Your task to perform on an android device: Play the latest video from the Huffington Post Image 0: 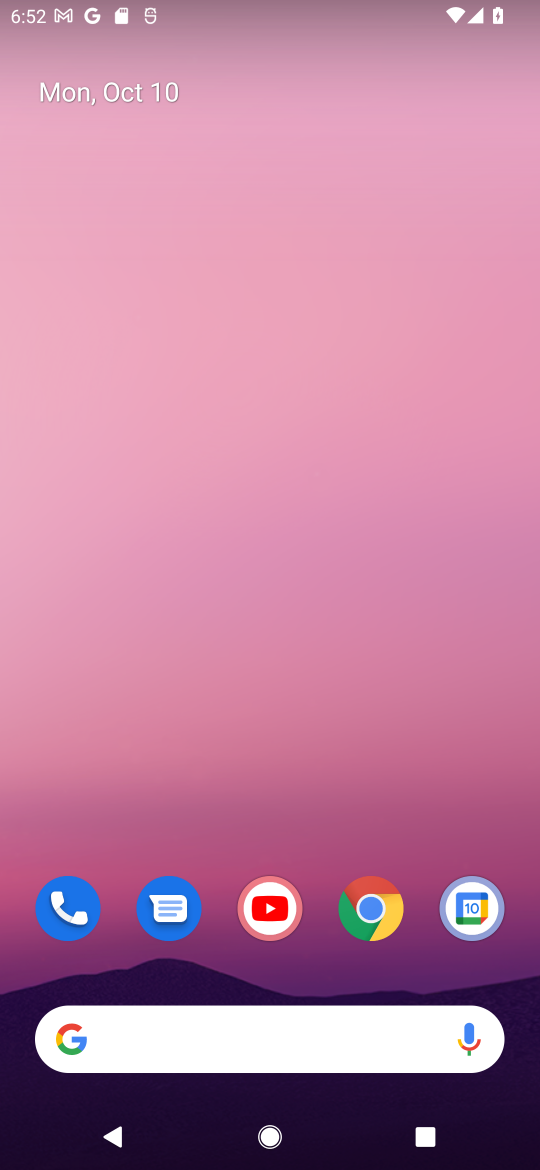
Step 0: drag from (326, 967) to (260, 31)
Your task to perform on an android device: Play the latest video from the Huffington Post Image 1: 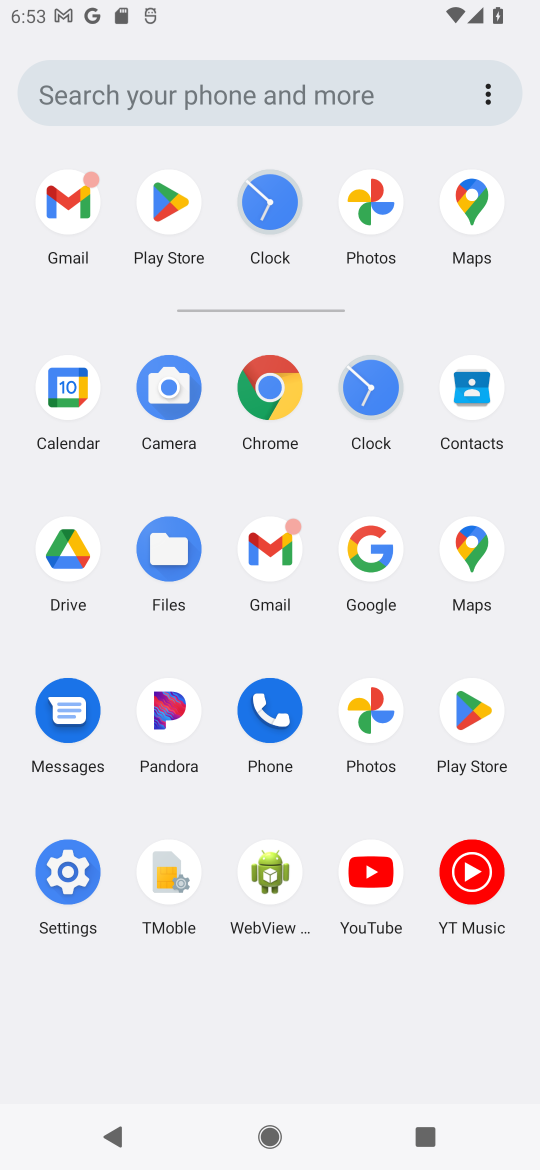
Step 1: click (339, 901)
Your task to perform on an android device: Play the latest video from the Huffington Post Image 2: 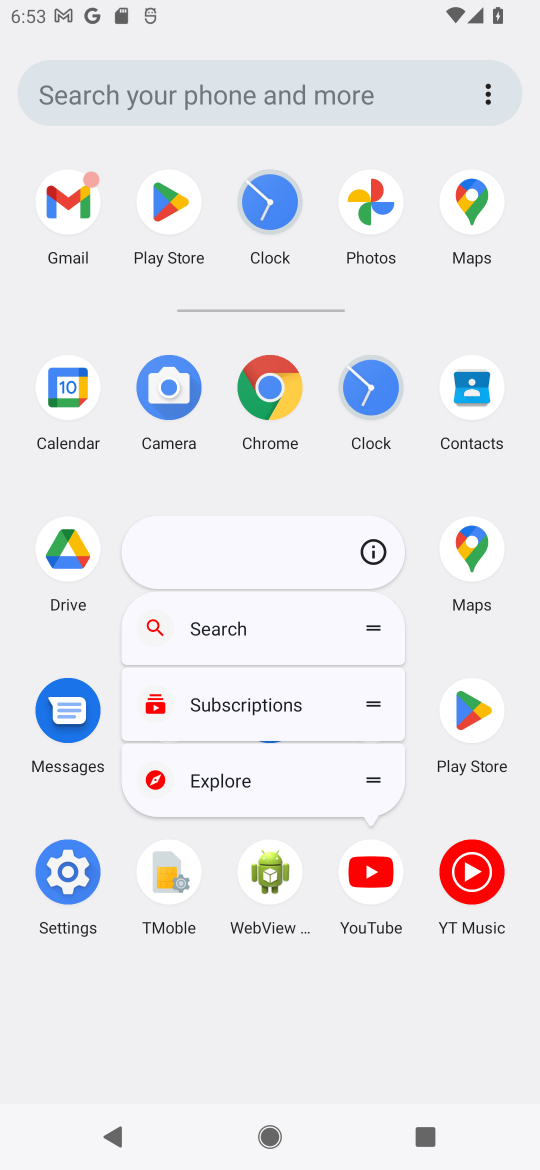
Step 2: click (377, 857)
Your task to perform on an android device: Play the latest video from the Huffington Post Image 3: 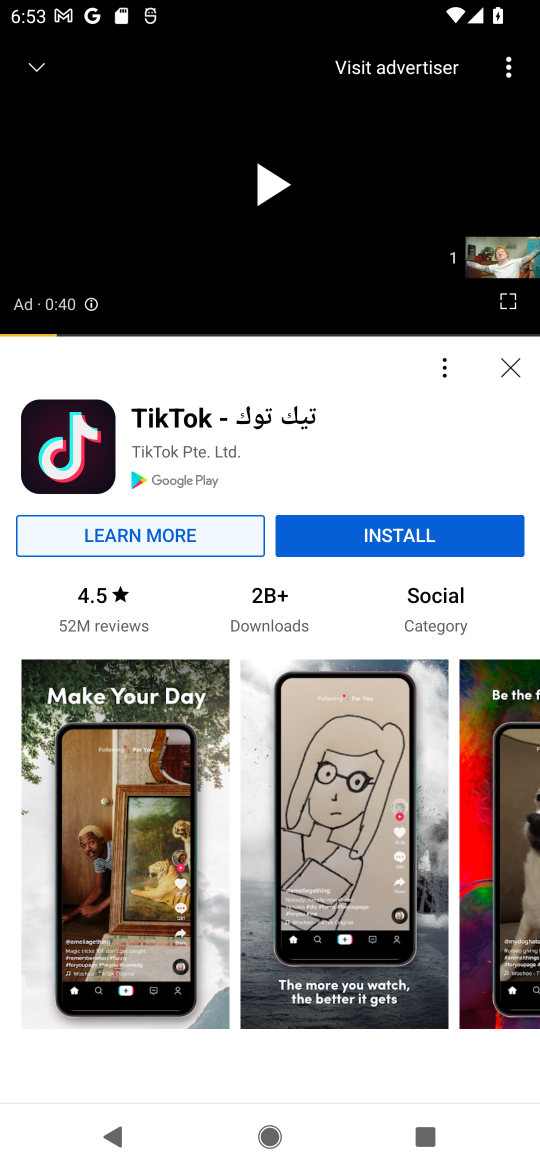
Step 3: drag from (390, 151) to (168, 1089)
Your task to perform on an android device: Play the latest video from the Huffington Post Image 4: 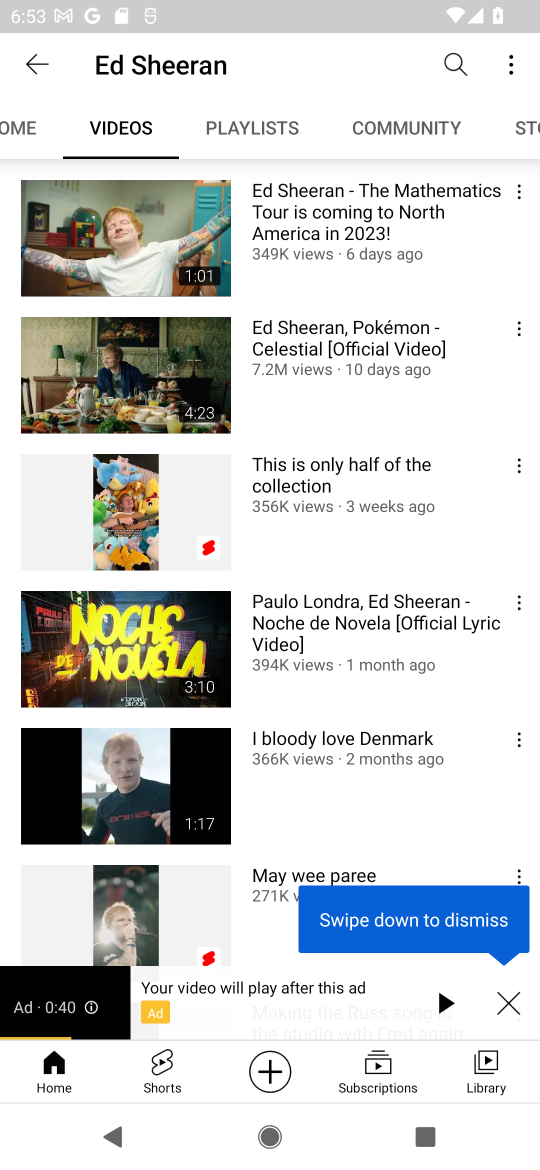
Step 4: click (265, 62)
Your task to perform on an android device: Play the latest video from the Huffington Post Image 5: 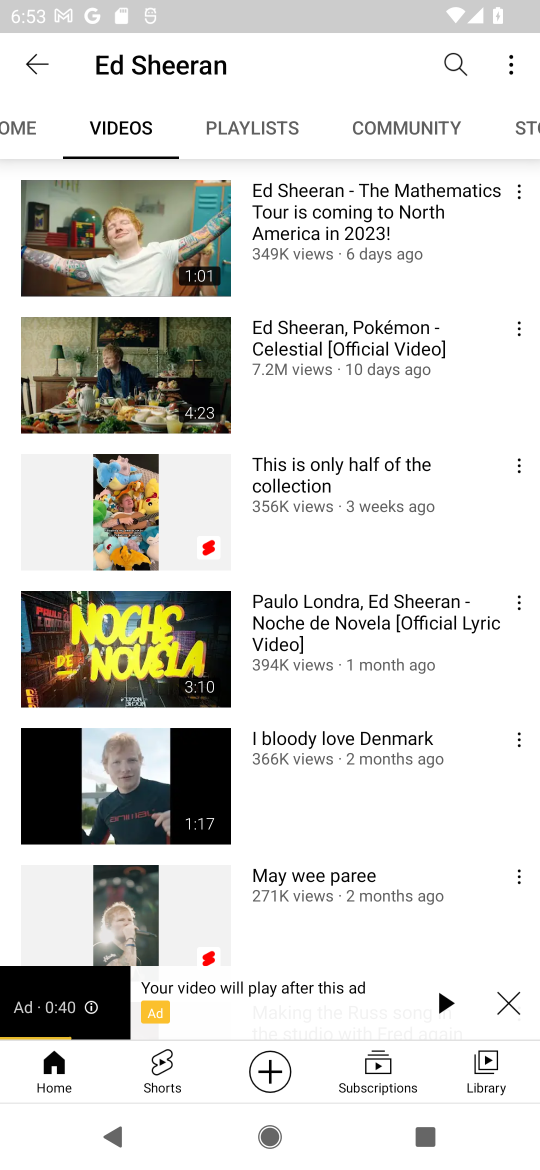
Step 5: click (239, 73)
Your task to perform on an android device: Play the latest video from the Huffington Post Image 6: 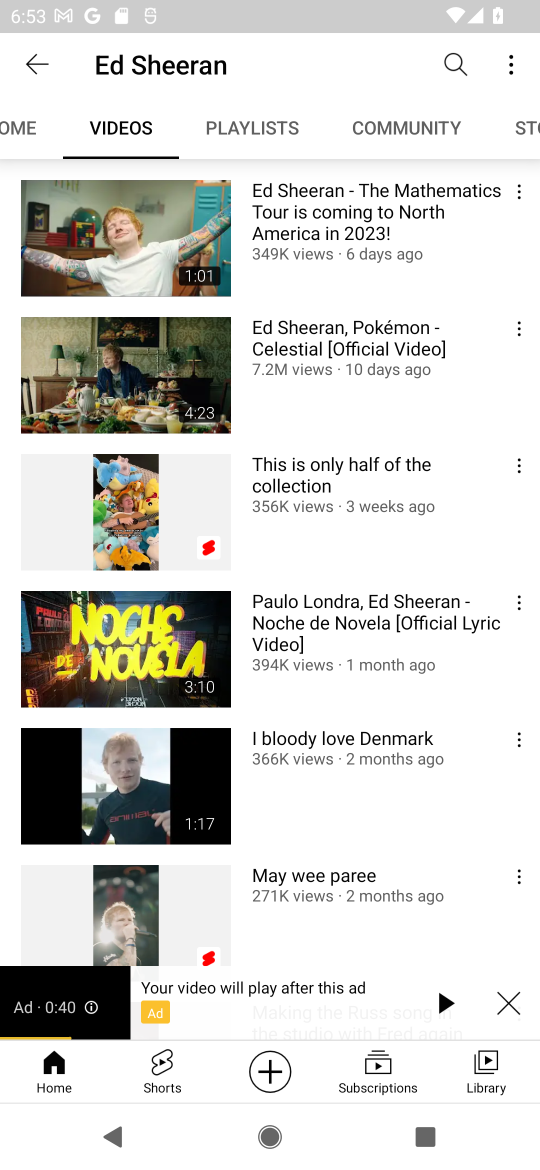
Step 6: click (239, 73)
Your task to perform on an android device: Play the latest video from the Huffington Post Image 7: 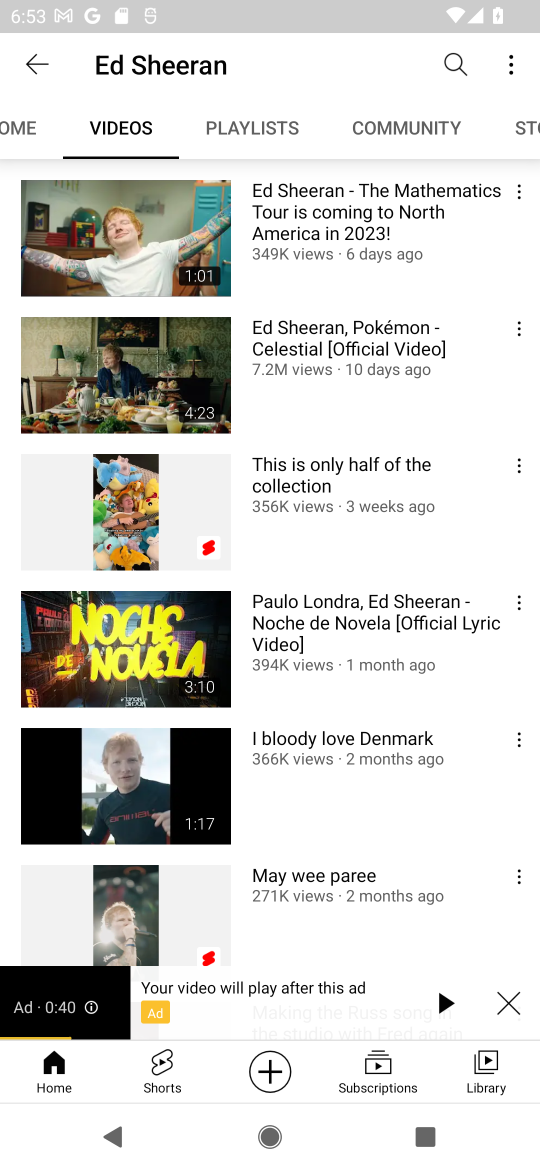
Step 7: press back button
Your task to perform on an android device: Play the latest video from the Huffington Post Image 8: 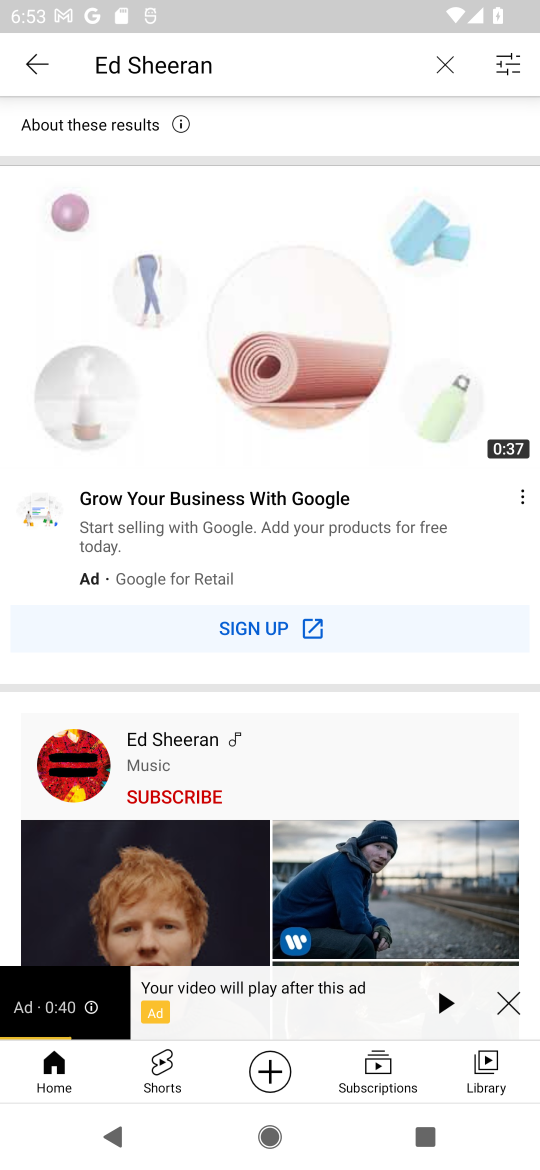
Step 8: click (438, 61)
Your task to perform on an android device: Play the latest video from the Huffington Post Image 9: 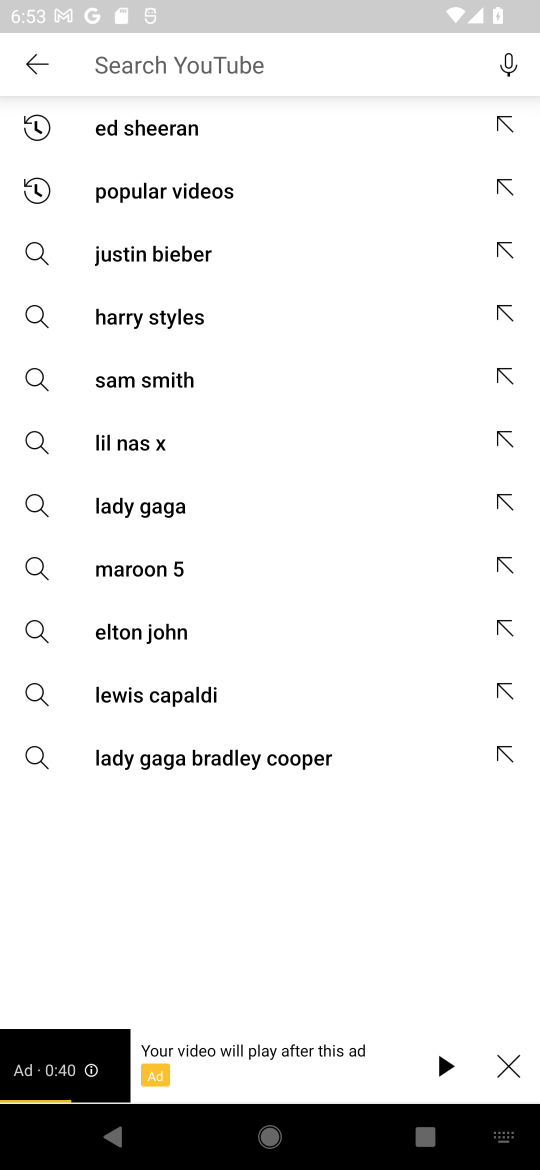
Step 9: type "Huffington Post"
Your task to perform on an android device: Play the latest video from the Huffington Post Image 10: 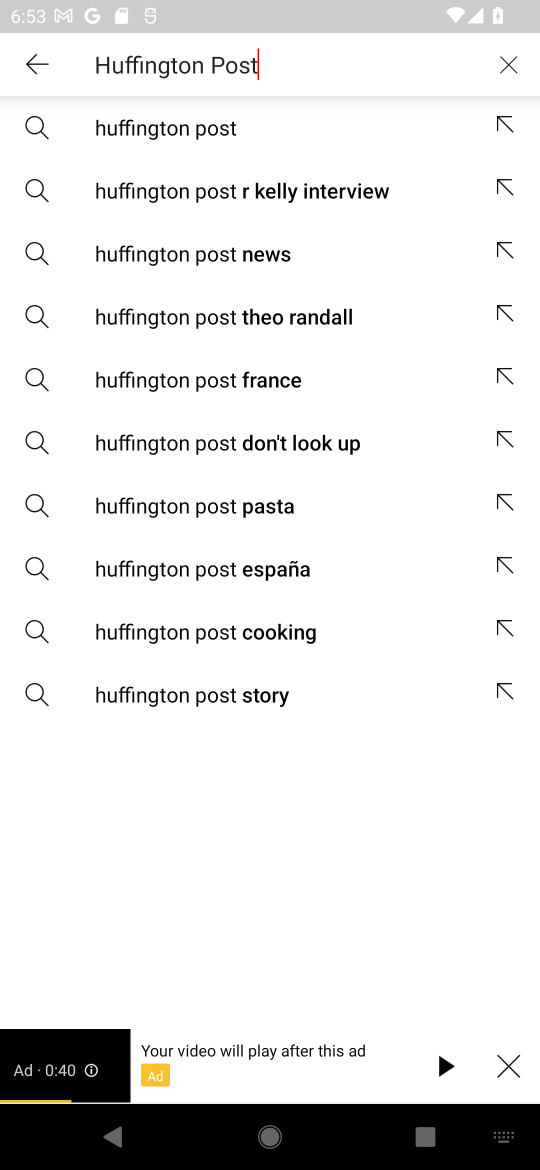
Step 10: press enter
Your task to perform on an android device: Play the latest video from the Huffington Post Image 11: 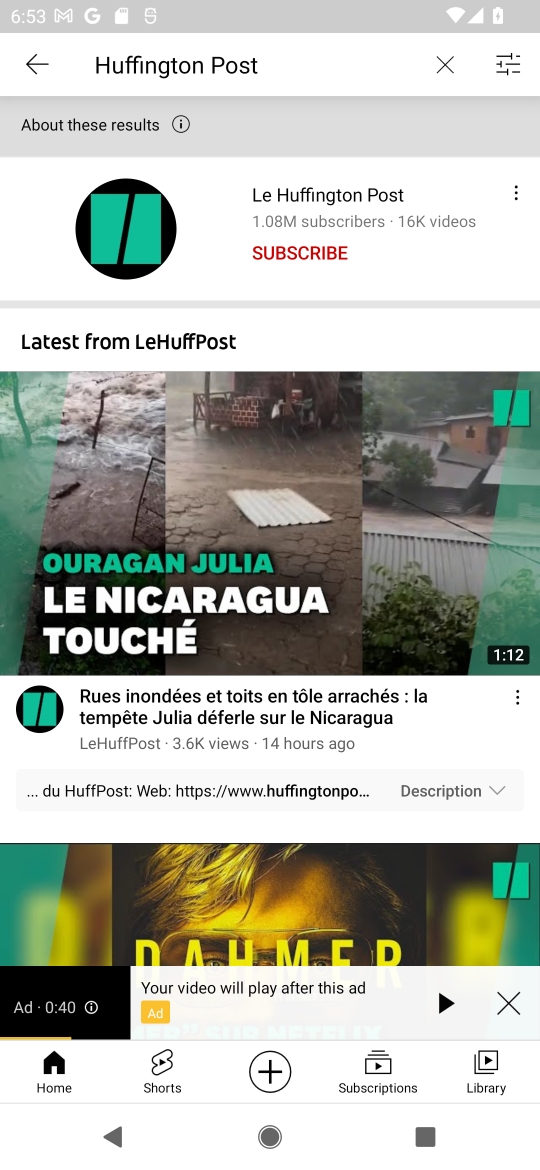
Step 11: click (307, 192)
Your task to perform on an android device: Play the latest video from the Huffington Post Image 12: 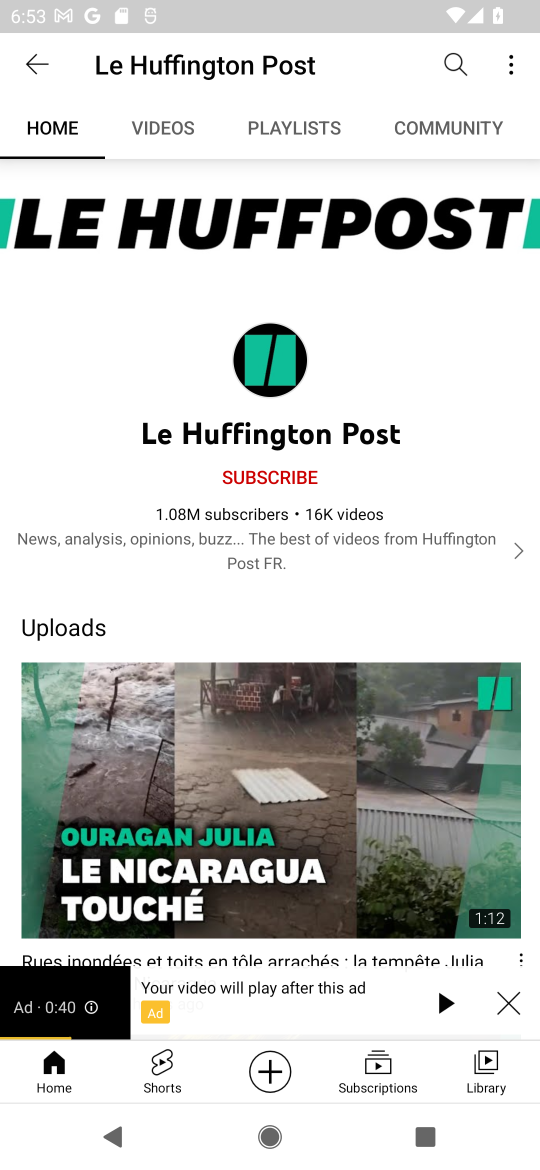
Step 12: click (187, 122)
Your task to perform on an android device: Play the latest video from the Huffington Post Image 13: 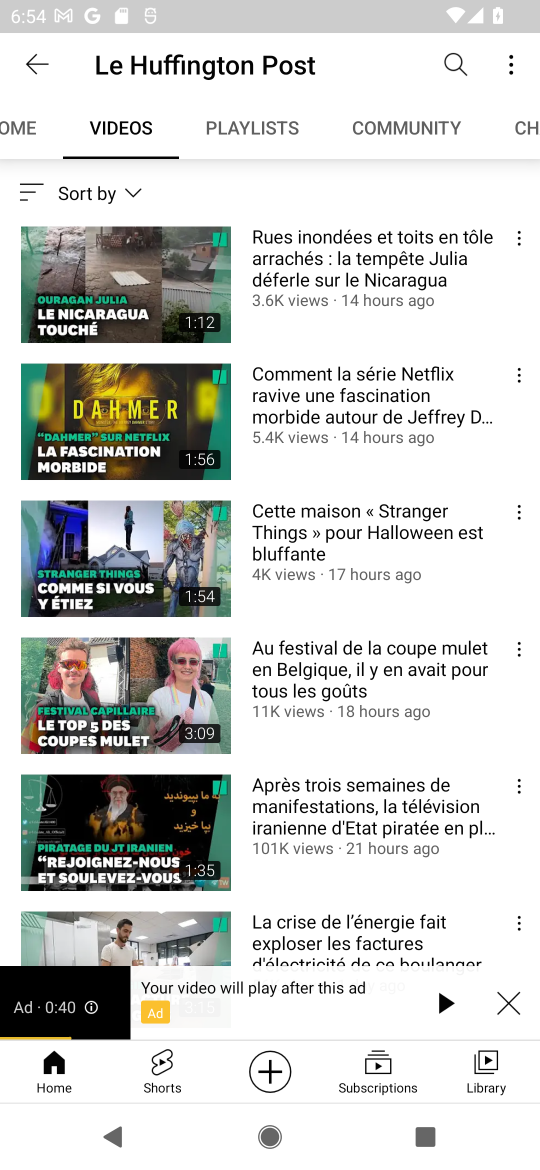
Step 13: click (133, 263)
Your task to perform on an android device: Play the latest video from the Huffington Post Image 14: 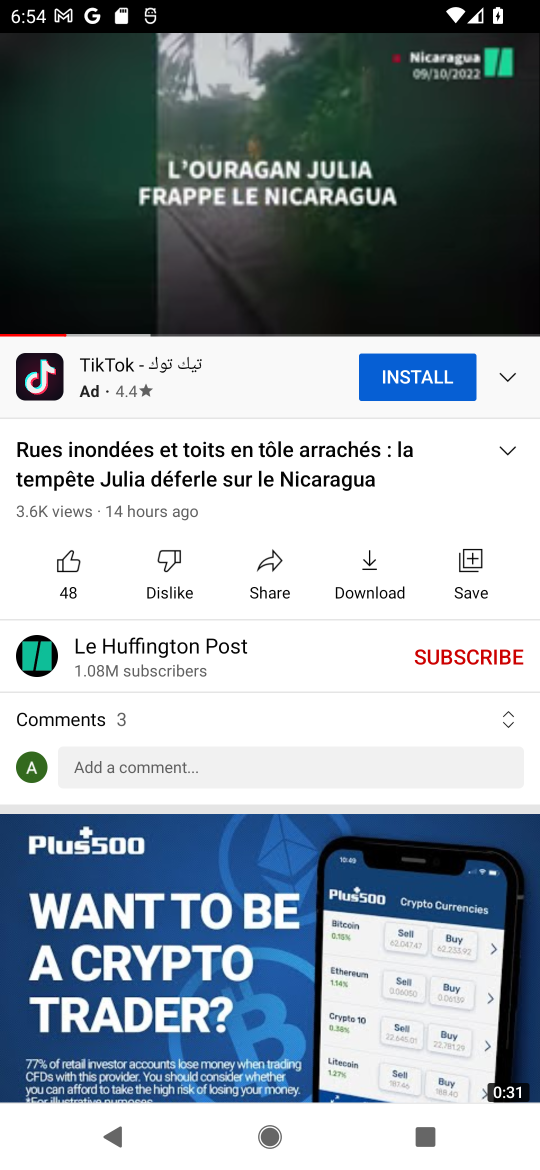
Step 14: task complete